Your task to perform on an android device: check out phone information Image 0: 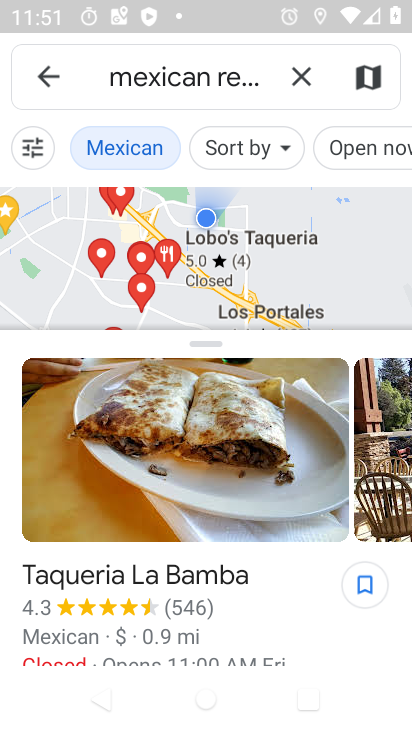
Step 0: press home button
Your task to perform on an android device: check out phone information Image 1: 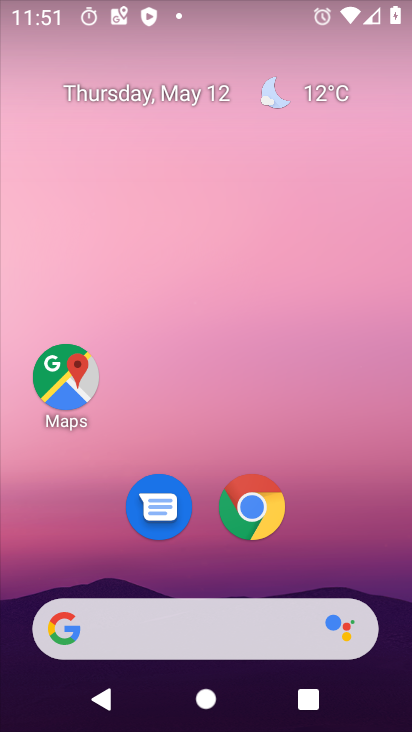
Step 1: drag from (217, 581) to (340, 65)
Your task to perform on an android device: check out phone information Image 2: 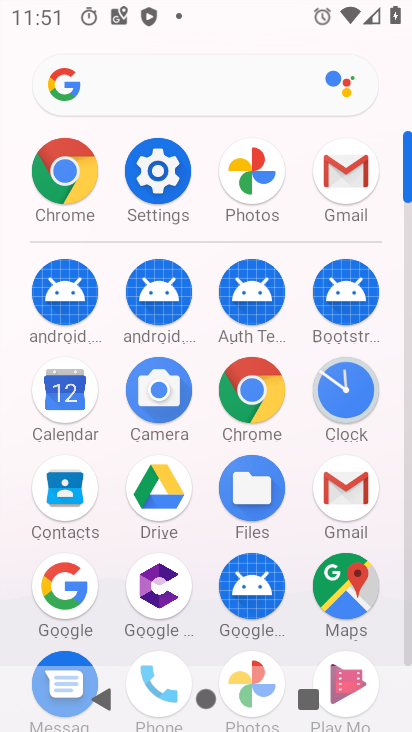
Step 2: click (156, 176)
Your task to perform on an android device: check out phone information Image 3: 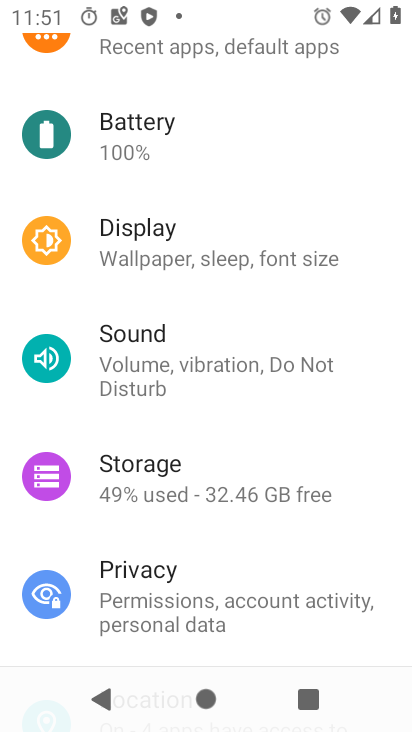
Step 3: drag from (156, 493) to (249, 158)
Your task to perform on an android device: check out phone information Image 4: 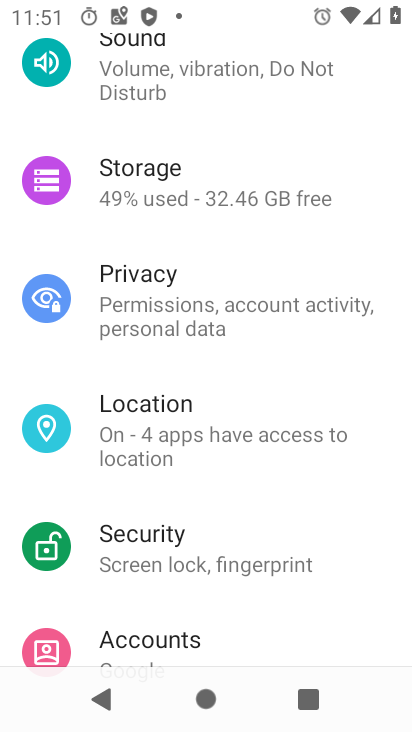
Step 4: drag from (214, 542) to (289, 240)
Your task to perform on an android device: check out phone information Image 5: 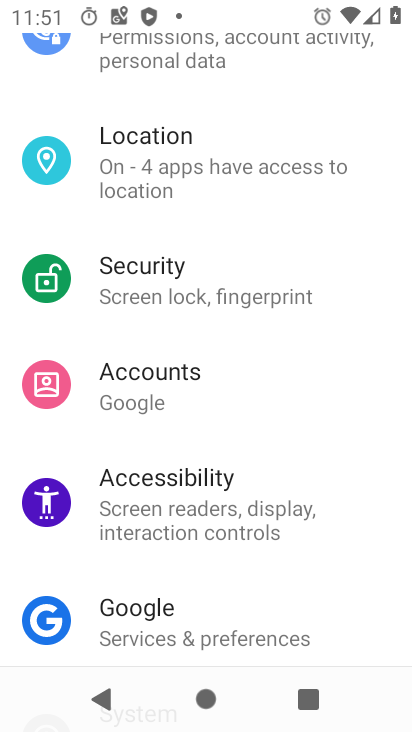
Step 5: drag from (208, 517) to (265, 217)
Your task to perform on an android device: check out phone information Image 6: 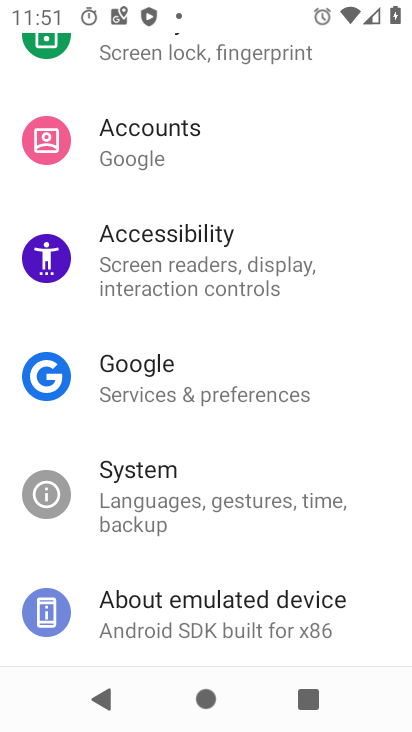
Step 6: drag from (203, 611) to (242, 347)
Your task to perform on an android device: check out phone information Image 7: 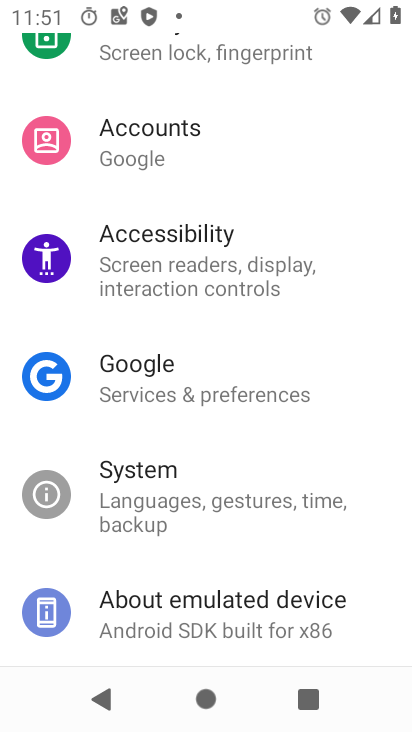
Step 7: click (172, 616)
Your task to perform on an android device: check out phone information Image 8: 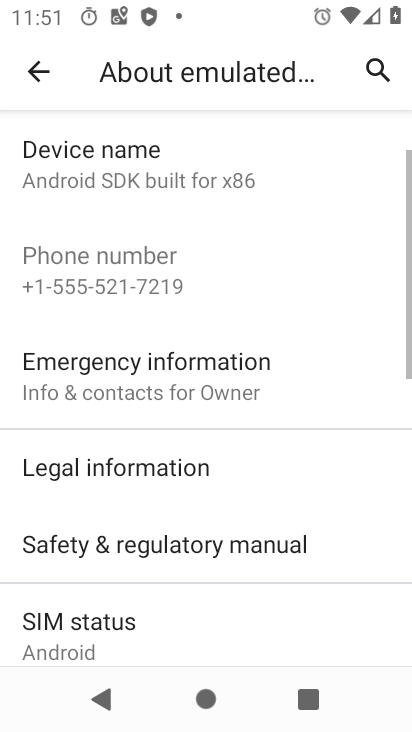
Step 8: task complete